Your task to perform on an android device: Go to Wikipedia Image 0: 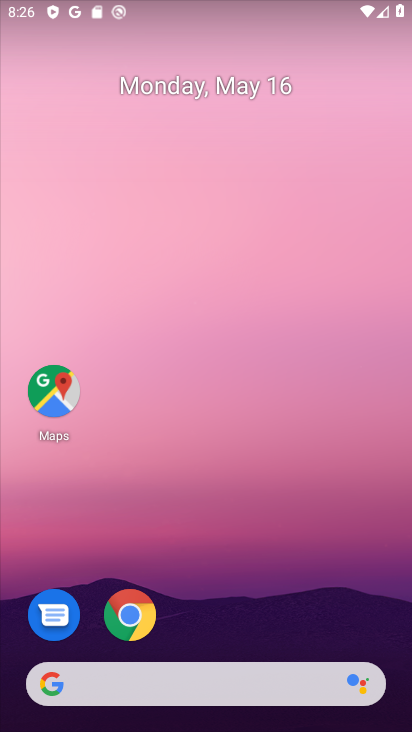
Step 0: click (120, 611)
Your task to perform on an android device: Go to Wikipedia Image 1: 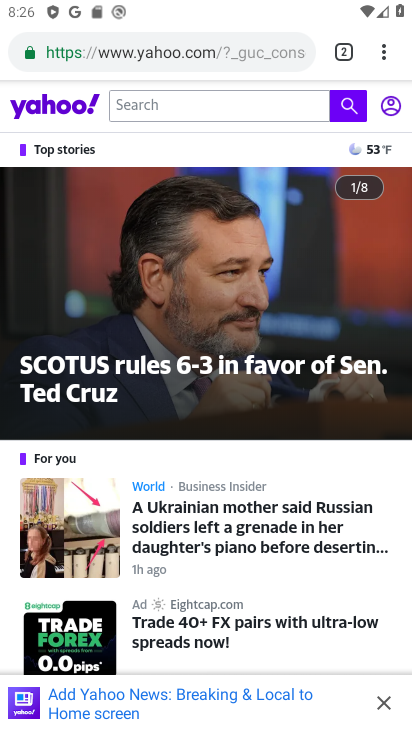
Step 1: click (344, 55)
Your task to perform on an android device: Go to Wikipedia Image 2: 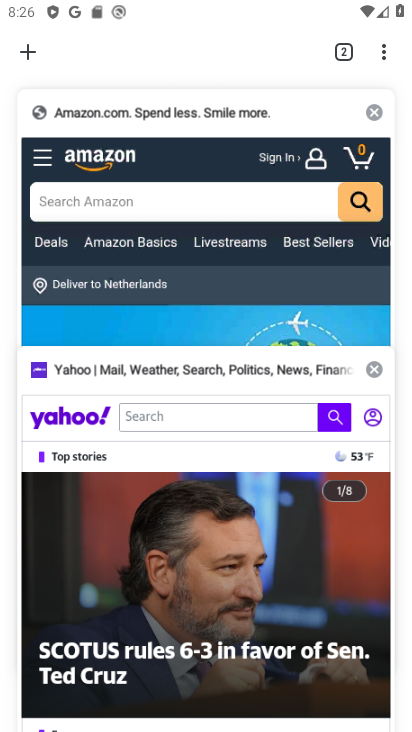
Step 2: click (366, 115)
Your task to perform on an android device: Go to Wikipedia Image 3: 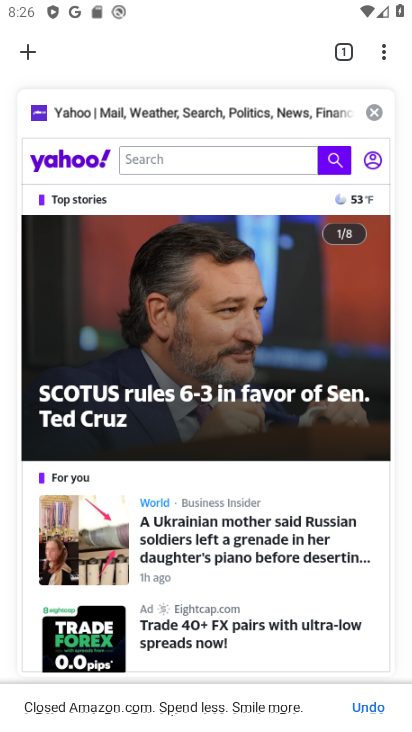
Step 3: click (374, 113)
Your task to perform on an android device: Go to Wikipedia Image 4: 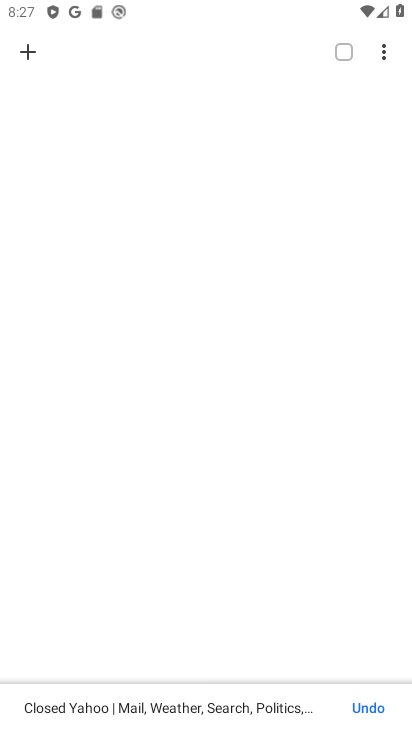
Step 4: click (21, 52)
Your task to perform on an android device: Go to Wikipedia Image 5: 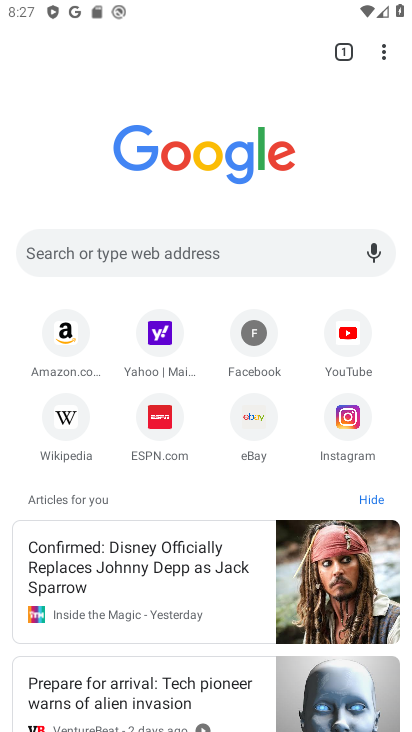
Step 5: click (58, 413)
Your task to perform on an android device: Go to Wikipedia Image 6: 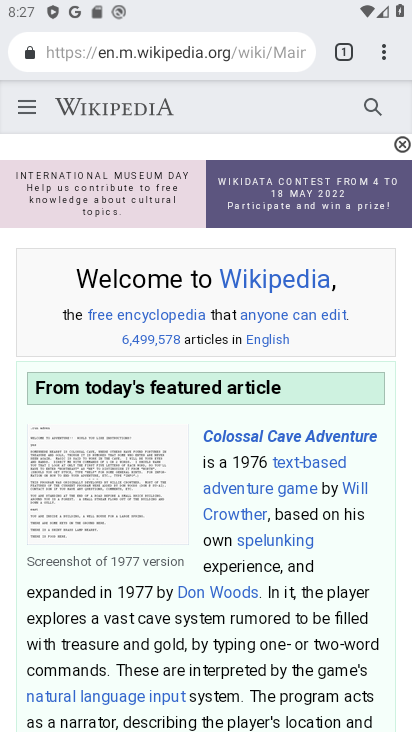
Step 6: task complete